Your task to perform on an android device: change the clock display to show seconds Image 0: 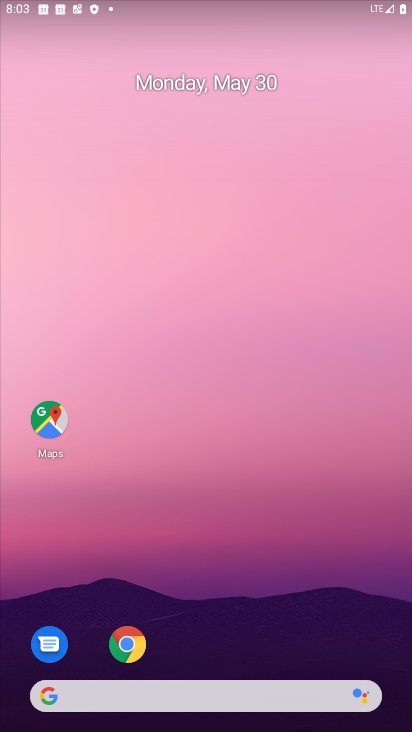
Step 0: drag from (242, 601) to (281, 86)
Your task to perform on an android device: change the clock display to show seconds Image 1: 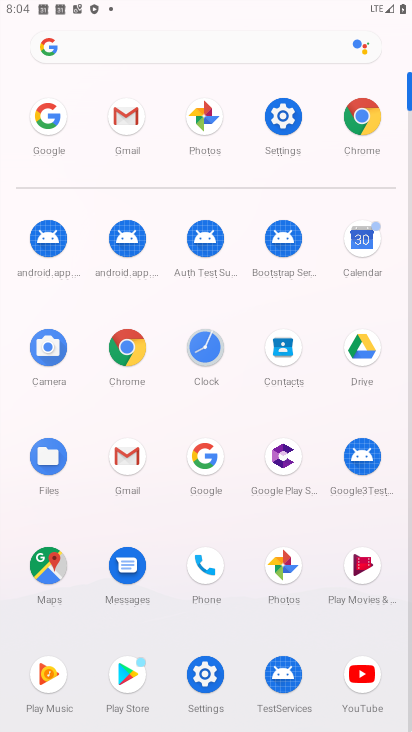
Step 1: click (206, 349)
Your task to perform on an android device: change the clock display to show seconds Image 2: 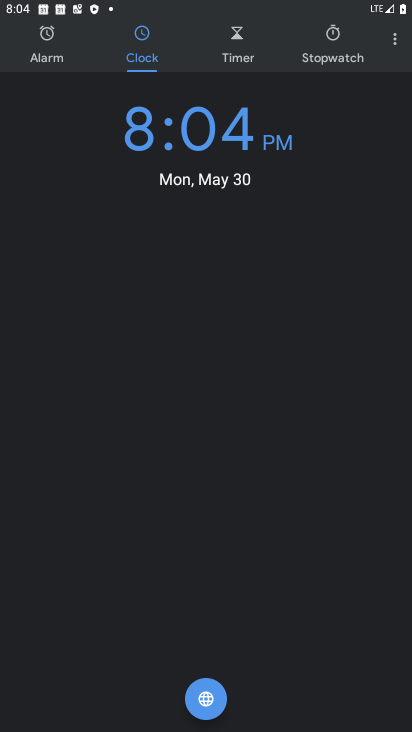
Step 2: click (397, 40)
Your task to perform on an android device: change the clock display to show seconds Image 3: 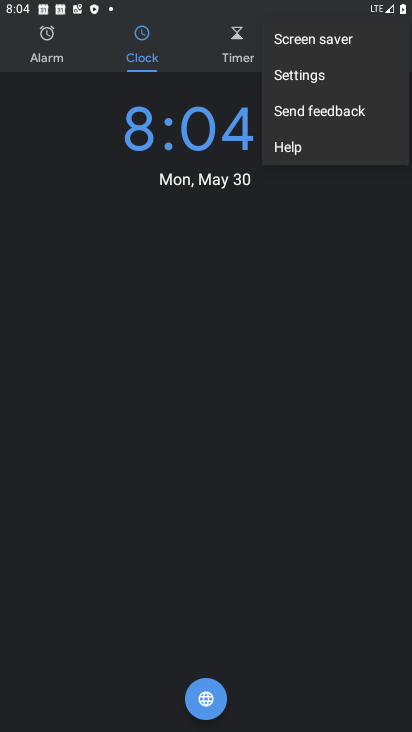
Step 3: click (321, 78)
Your task to perform on an android device: change the clock display to show seconds Image 4: 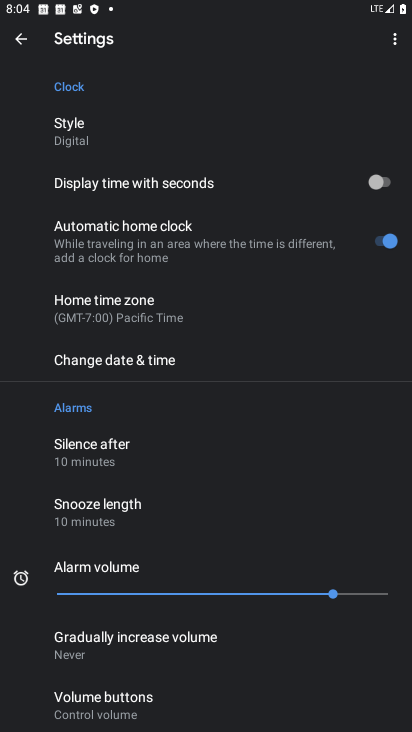
Step 4: click (379, 188)
Your task to perform on an android device: change the clock display to show seconds Image 5: 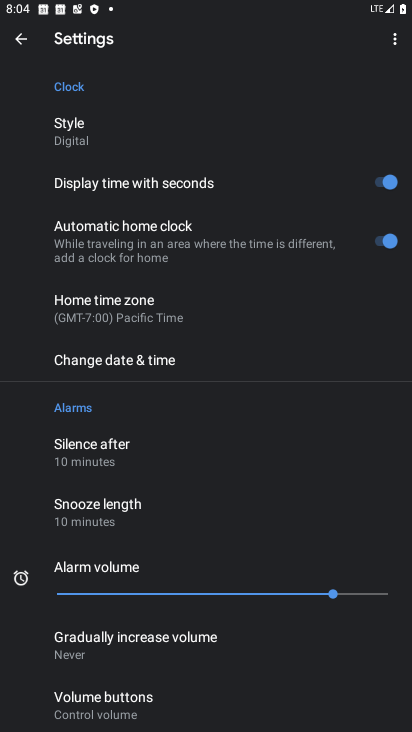
Step 5: task complete